Your task to perform on an android device: Go to ESPN.com Image 0: 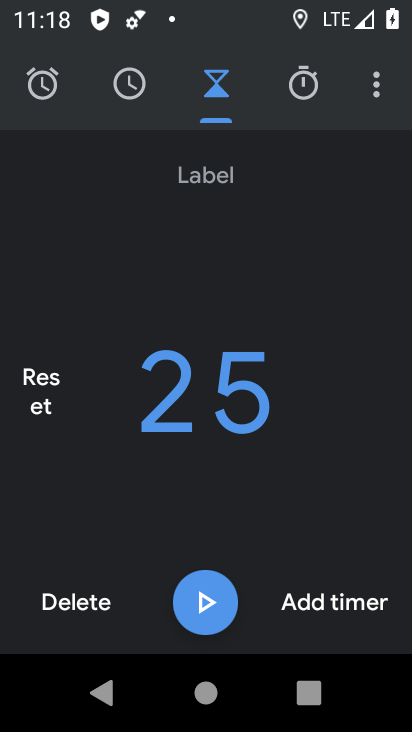
Step 0: press home button
Your task to perform on an android device: Go to ESPN.com Image 1: 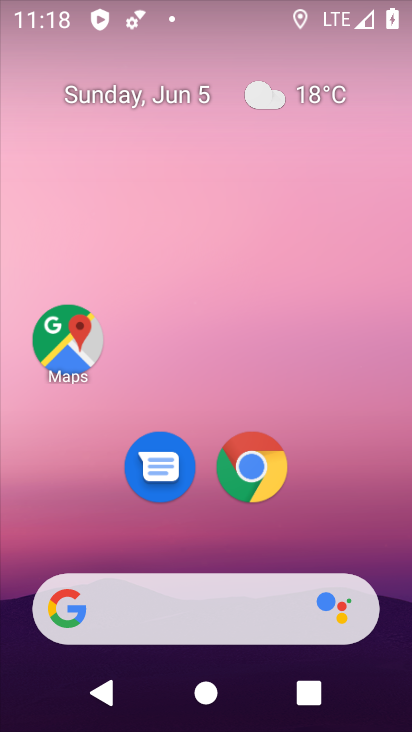
Step 1: click (251, 483)
Your task to perform on an android device: Go to ESPN.com Image 2: 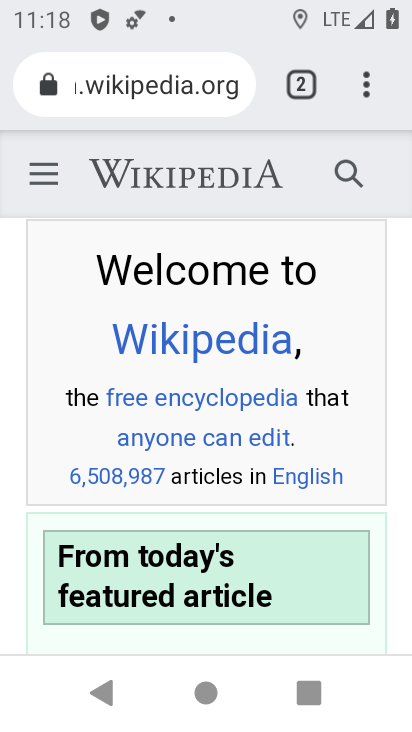
Step 2: click (301, 81)
Your task to perform on an android device: Go to ESPN.com Image 3: 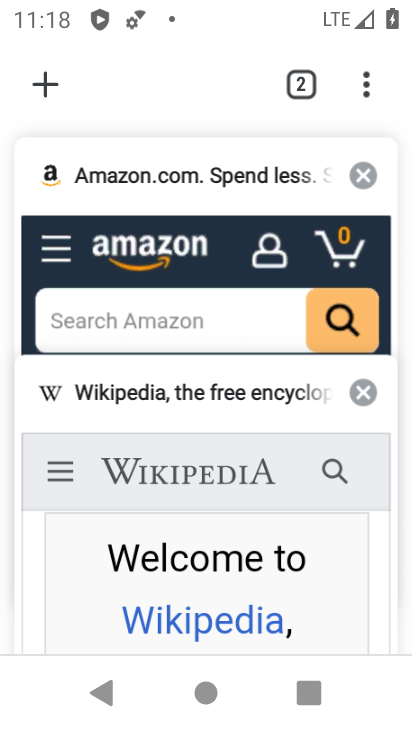
Step 3: click (40, 89)
Your task to perform on an android device: Go to ESPN.com Image 4: 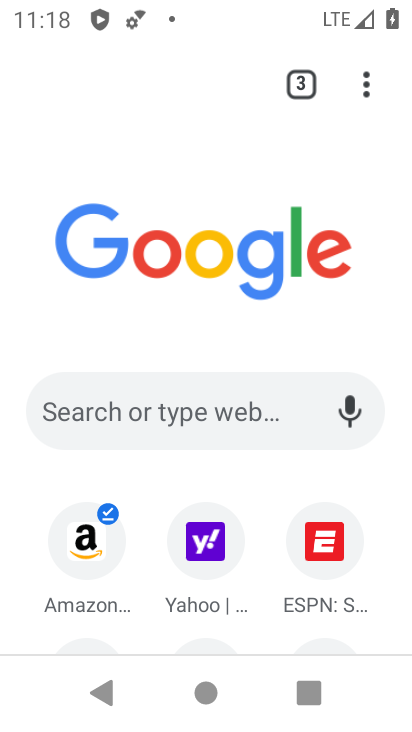
Step 4: click (316, 548)
Your task to perform on an android device: Go to ESPN.com Image 5: 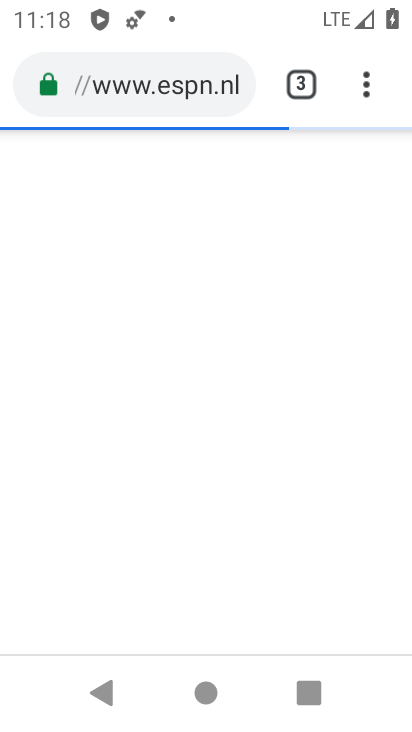
Step 5: task complete